Your task to perform on an android device: choose inbox layout in the gmail app Image 0: 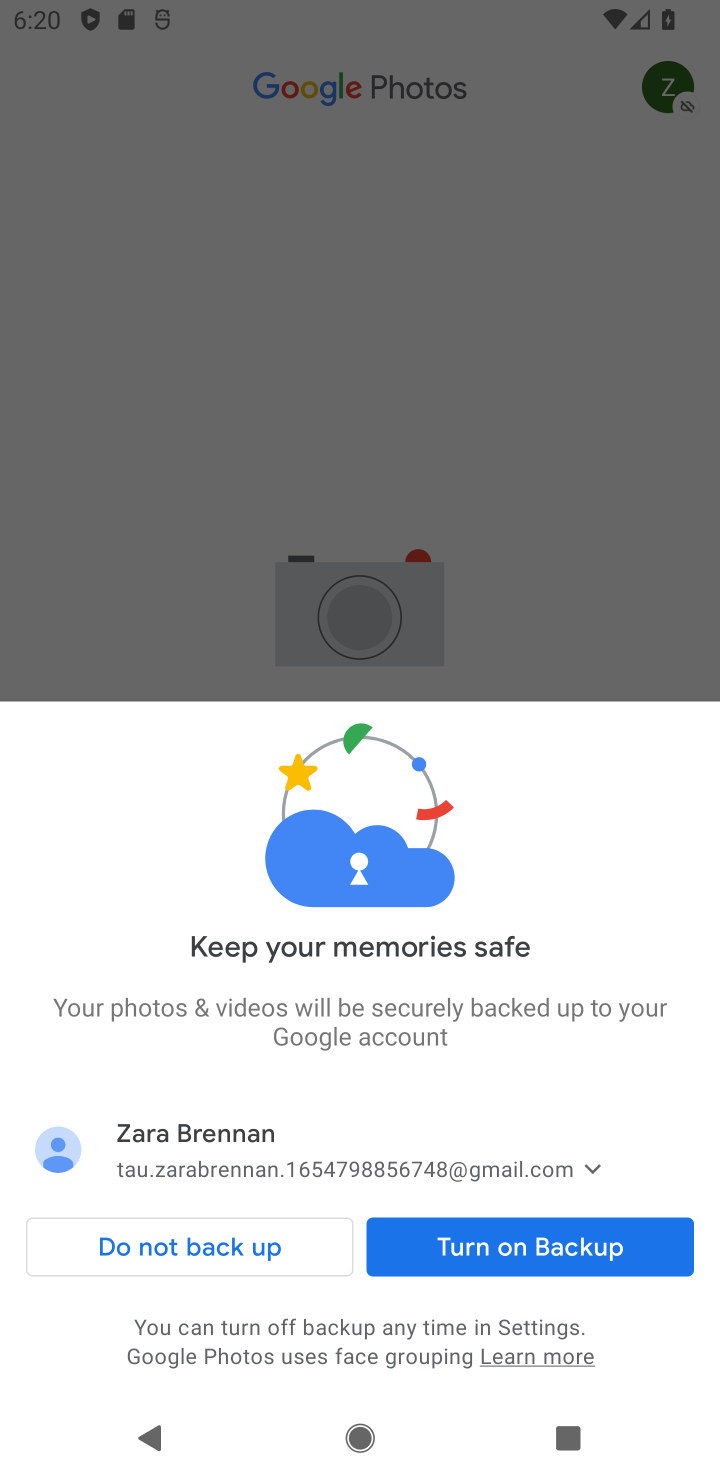
Step 0: press home button
Your task to perform on an android device: choose inbox layout in the gmail app Image 1: 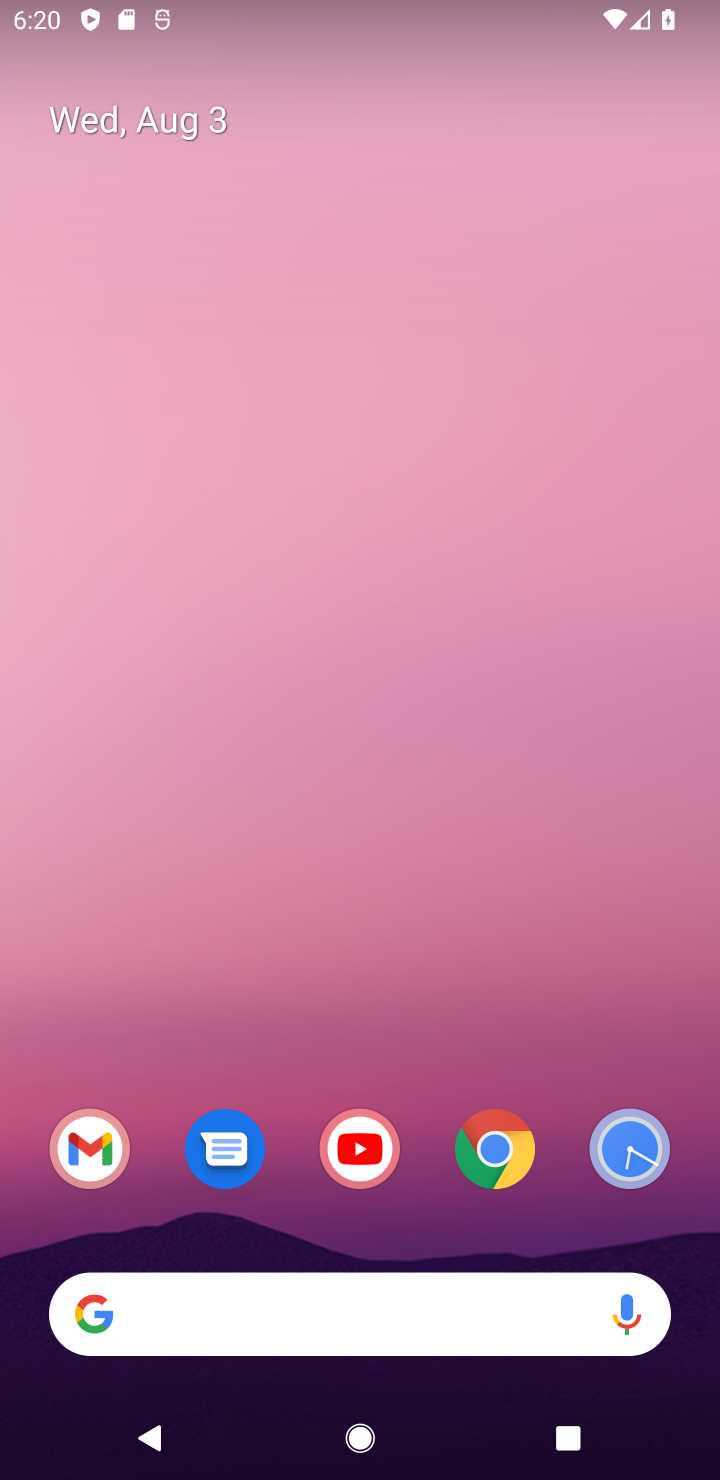
Step 1: click (92, 1185)
Your task to perform on an android device: choose inbox layout in the gmail app Image 2: 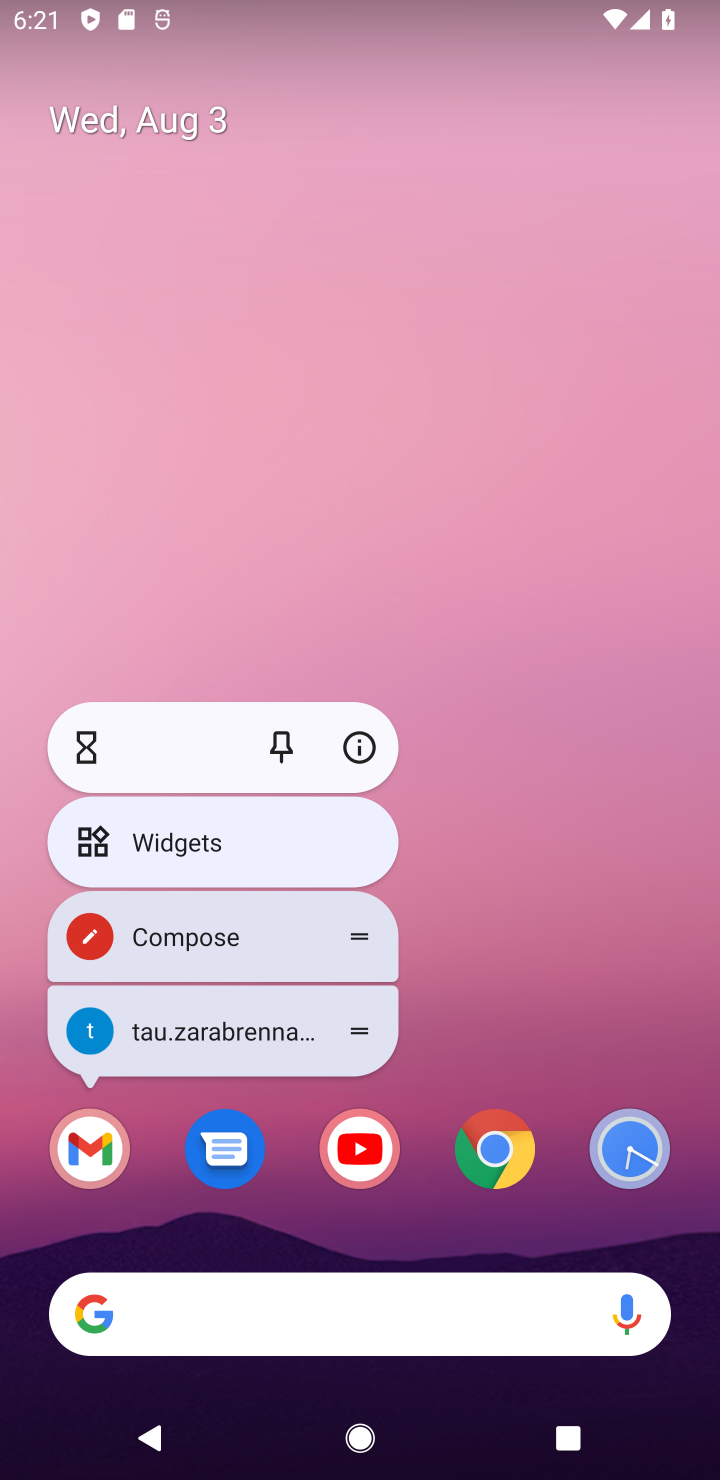
Step 2: click (91, 1181)
Your task to perform on an android device: choose inbox layout in the gmail app Image 3: 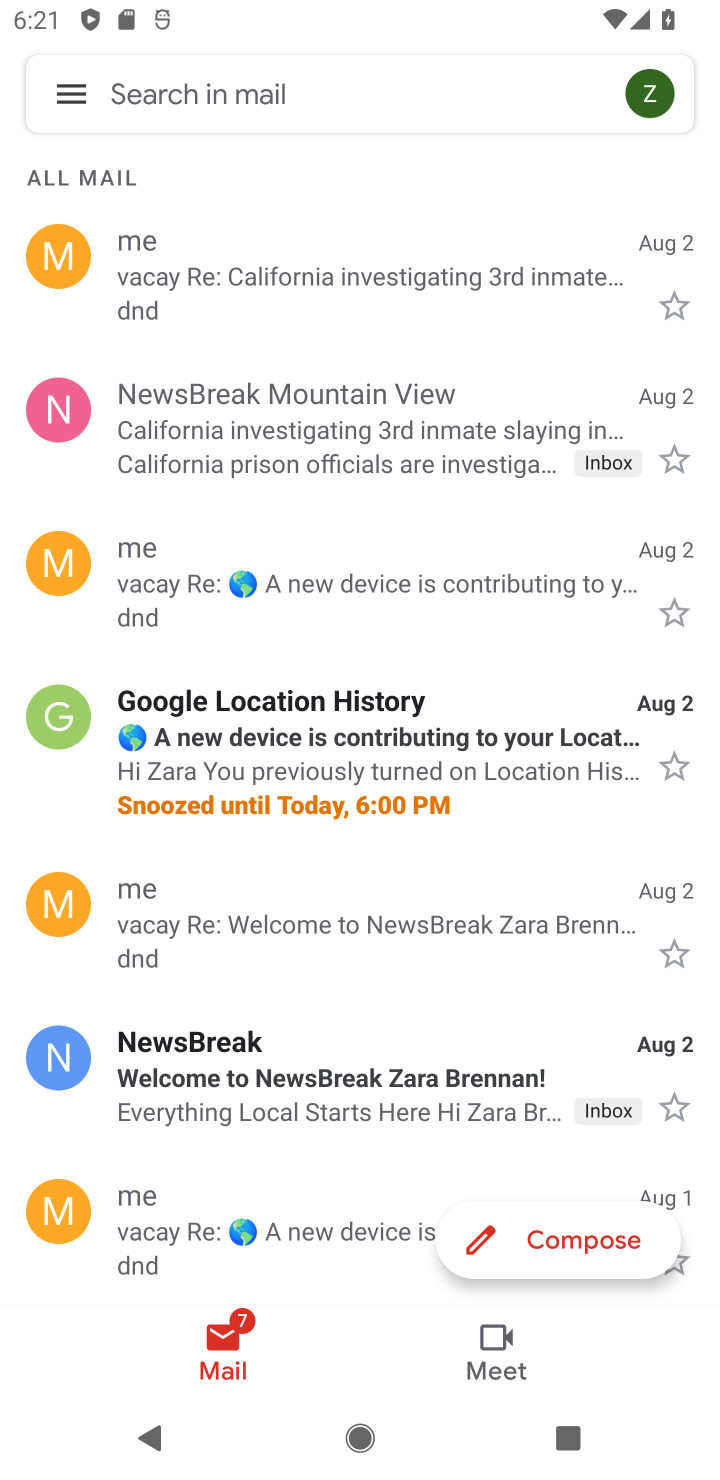
Step 3: click (80, 90)
Your task to perform on an android device: choose inbox layout in the gmail app Image 4: 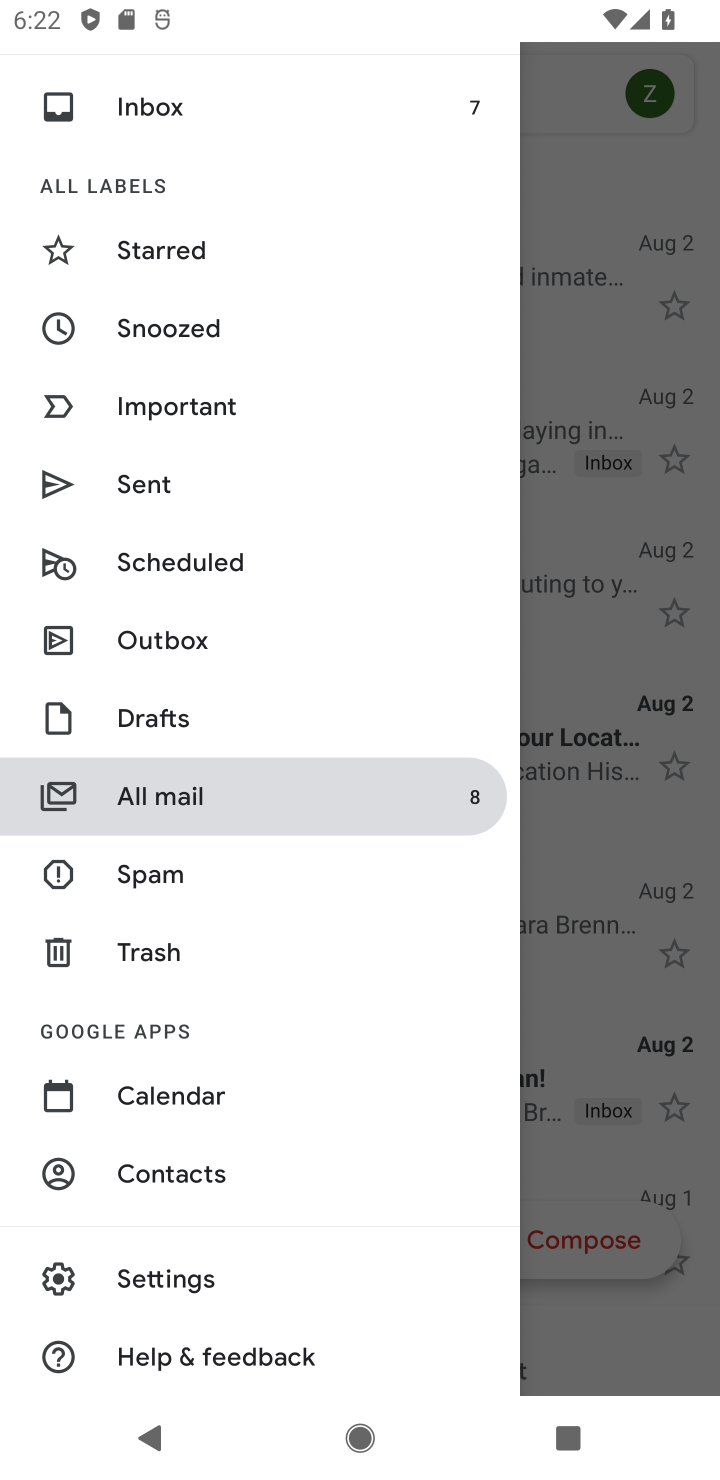
Step 4: click (153, 1278)
Your task to perform on an android device: choose inbox layout in the gmail app Image 5: 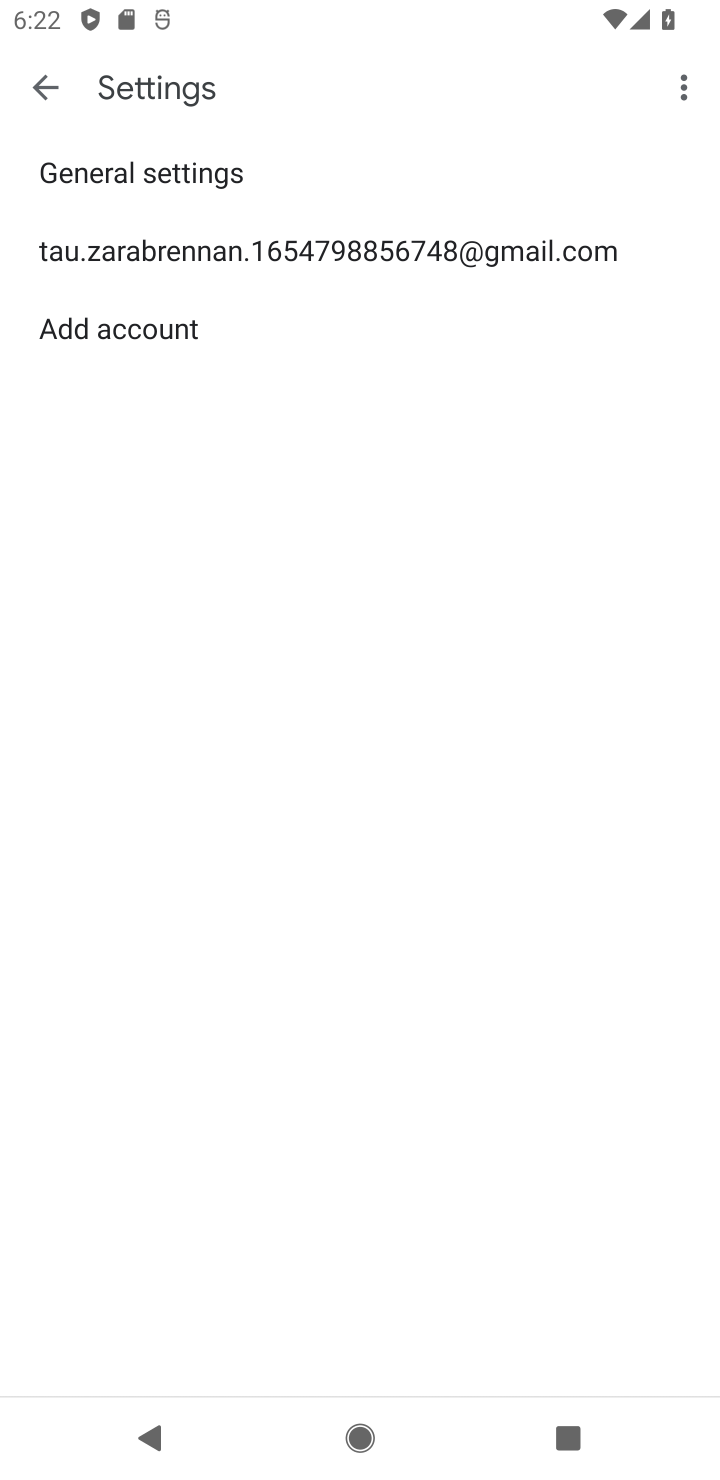
Step 5: click (176, 257)
Your task to perform on an android device: choose inbox layout in the gmail app Image 6: 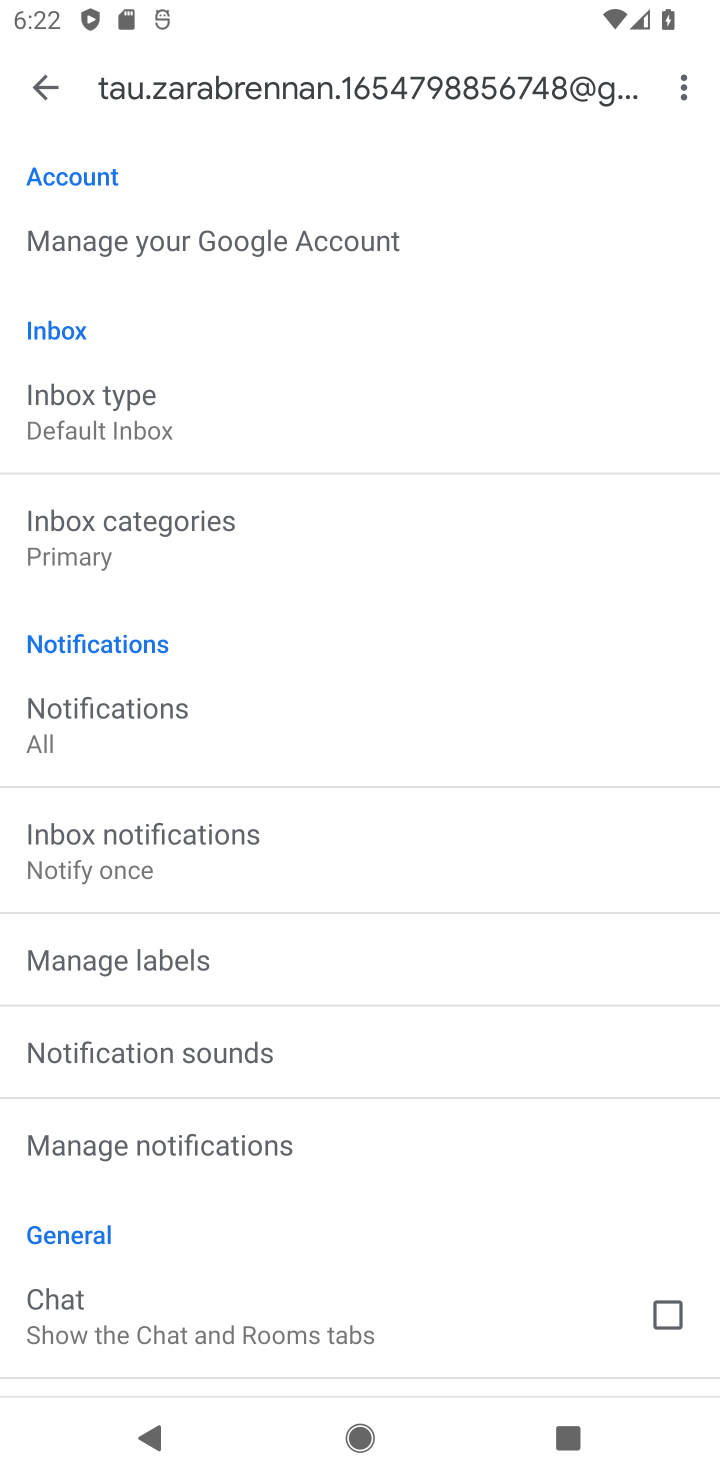
Step 6: click (188, 406)
Your task to perform on an android device: choose inbox layout in the gmail app Image 7: 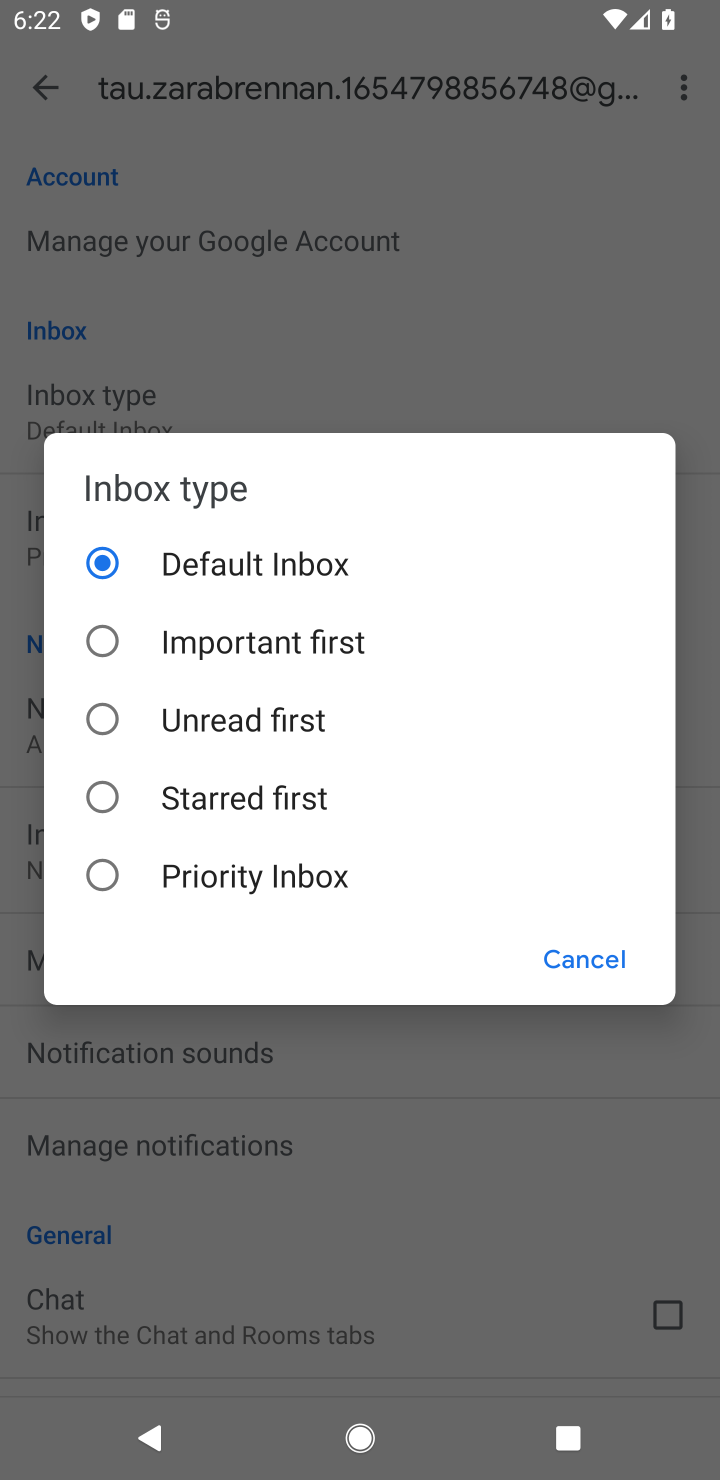
Step 7: click (190, 887)
Your task to perform on an android device: choose inbox layout in the gmail app Image 8: 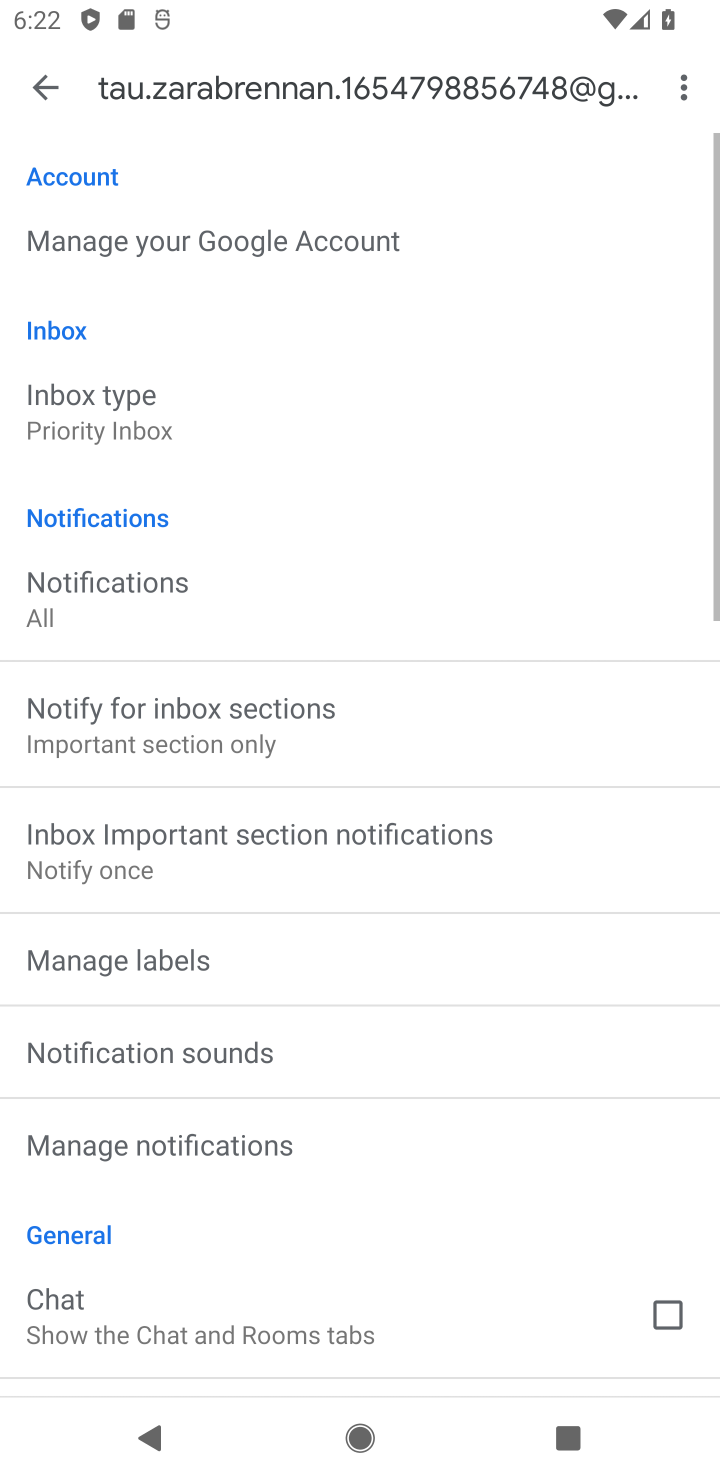
Step 8: task complete